Your task to perform on an android device: Open calendar and show me the second week of next month Image 0: 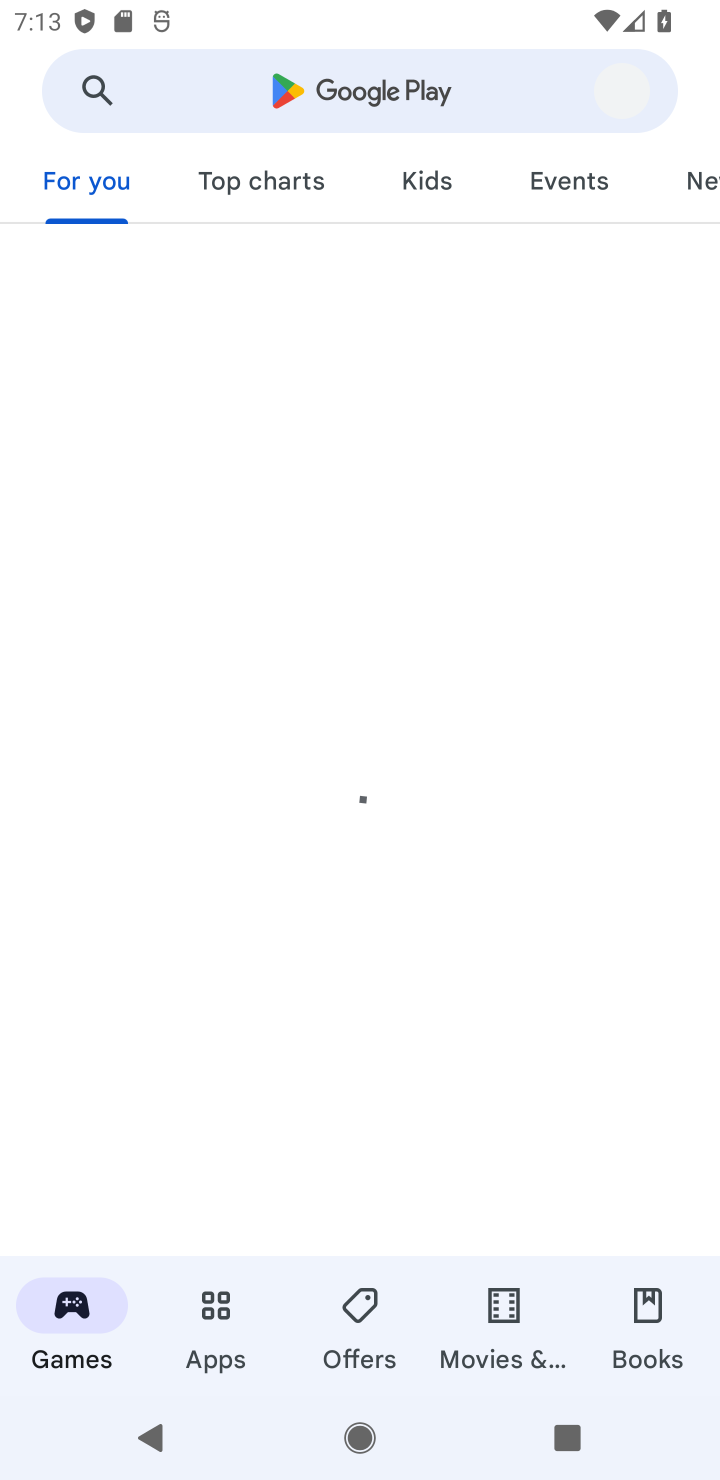
Step 0: press back button
Your task to perform on an android device: Open calendar and show me the second week of next month Image 1: 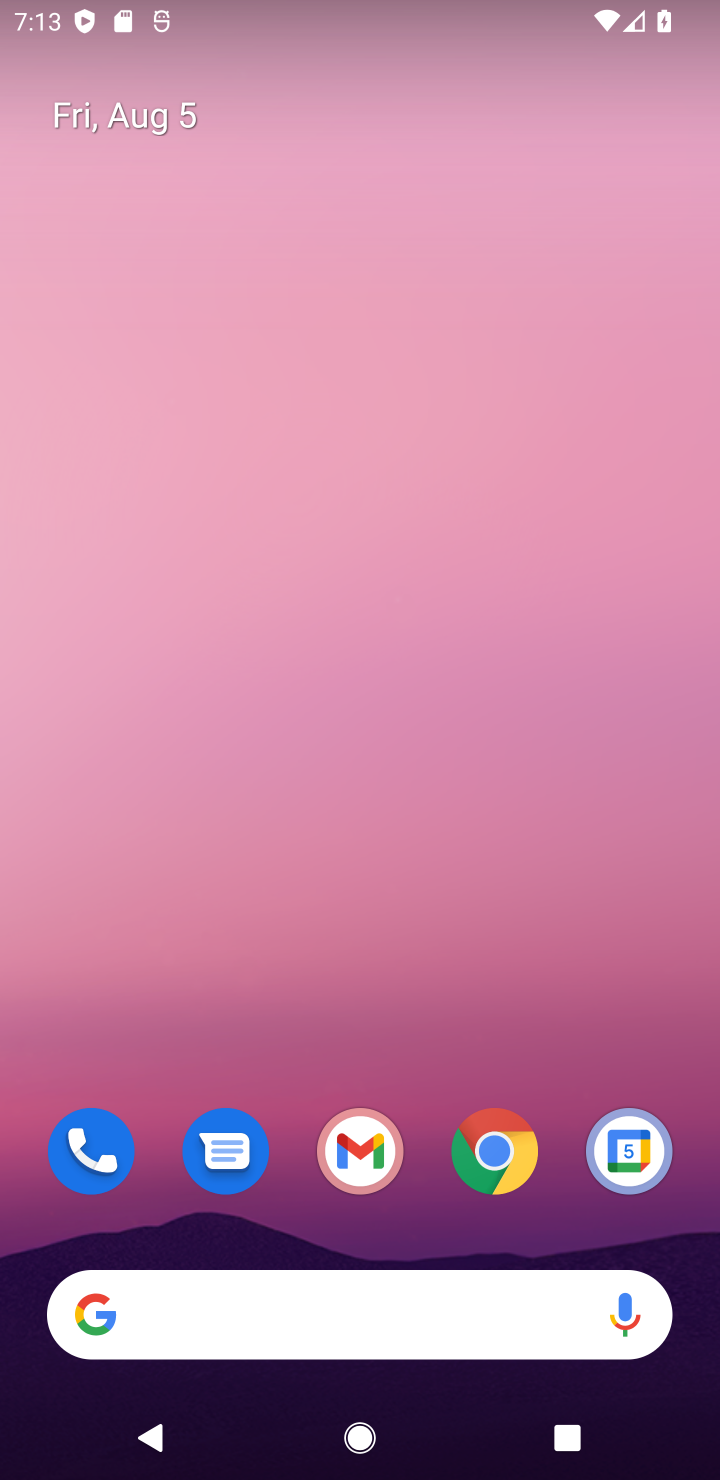
Step 1: drag from (460, 1249) to (396, 27)
Your task to perform on an android device: Open calendar and show me the second week of next month Image 2: 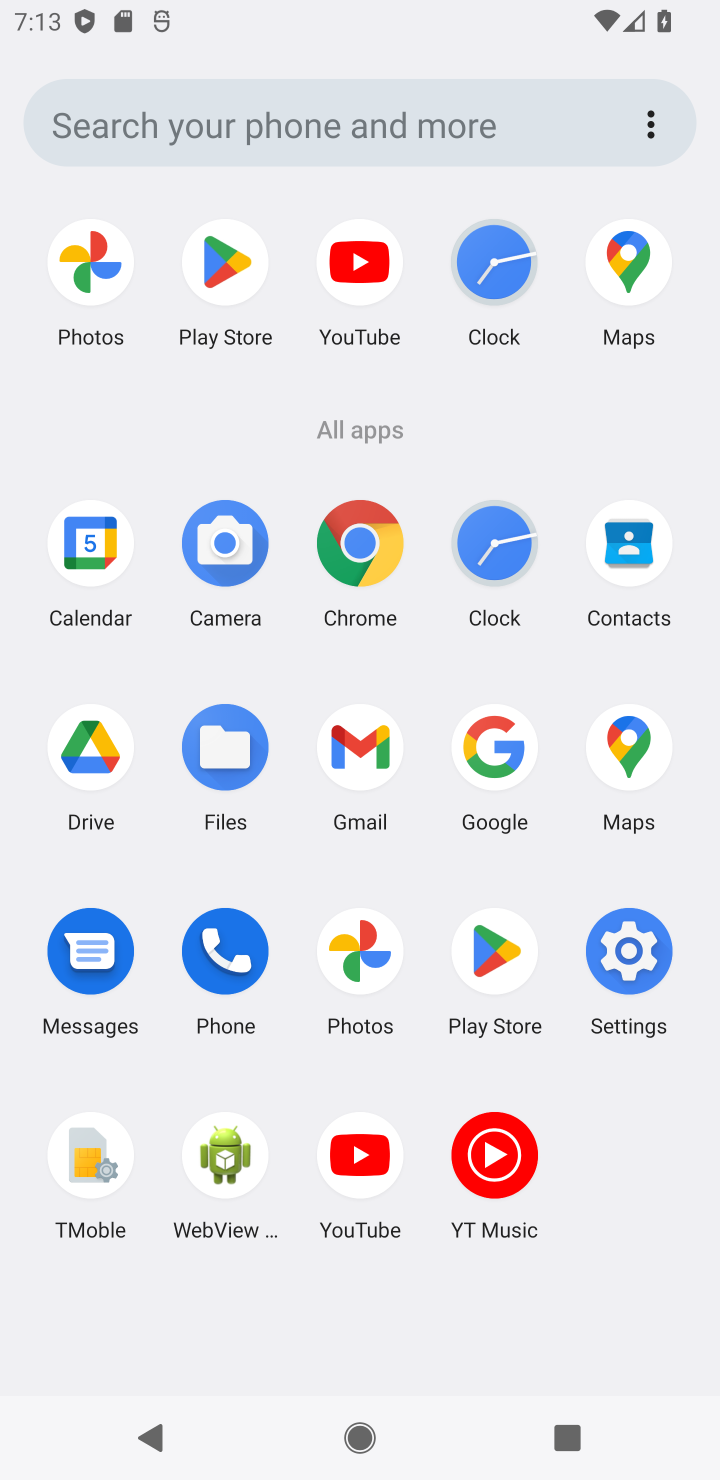
Step 2: click (35, 562)
Your task to perform on an android device: Open calendar and show me the second week of next month Image 3: 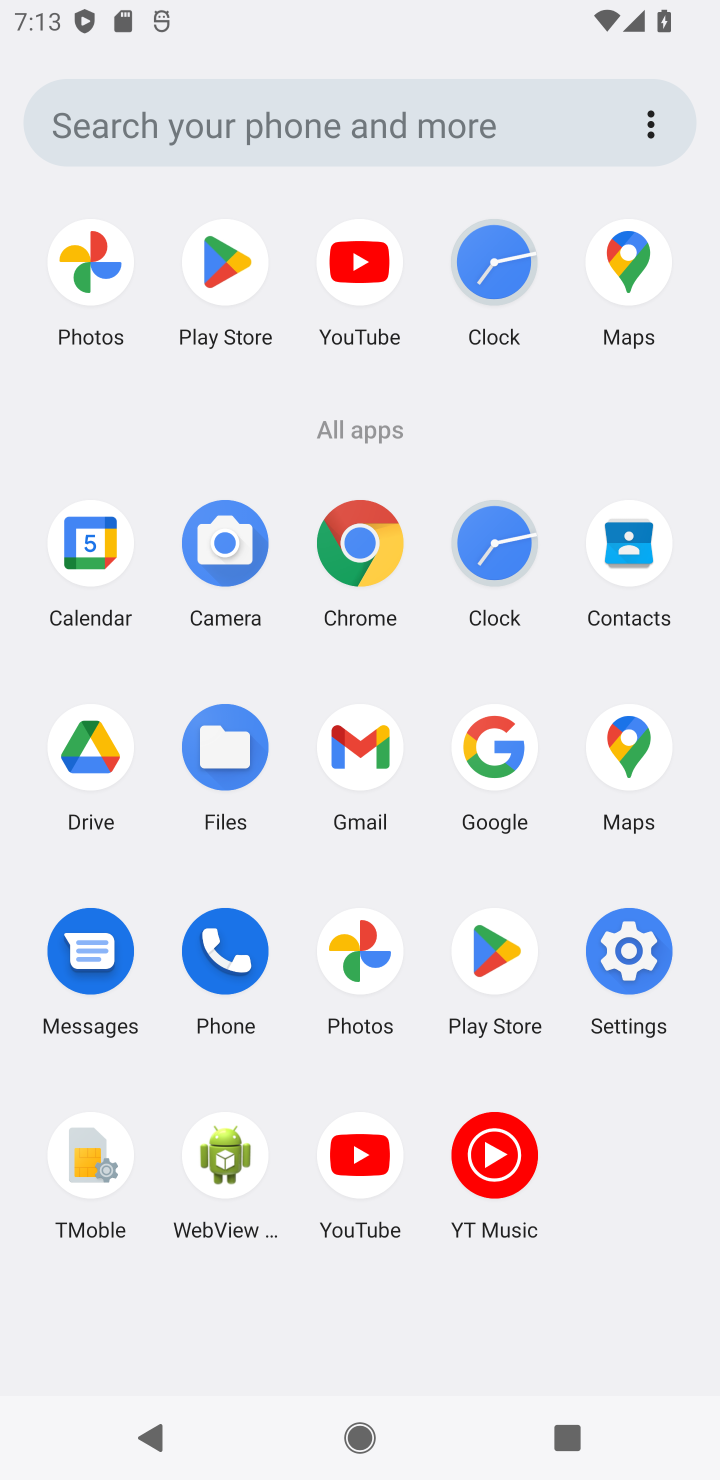
Step 3: click (75, 548)
Your task to perform on an android device: Open calendar and show me the second week of next month Image 4: 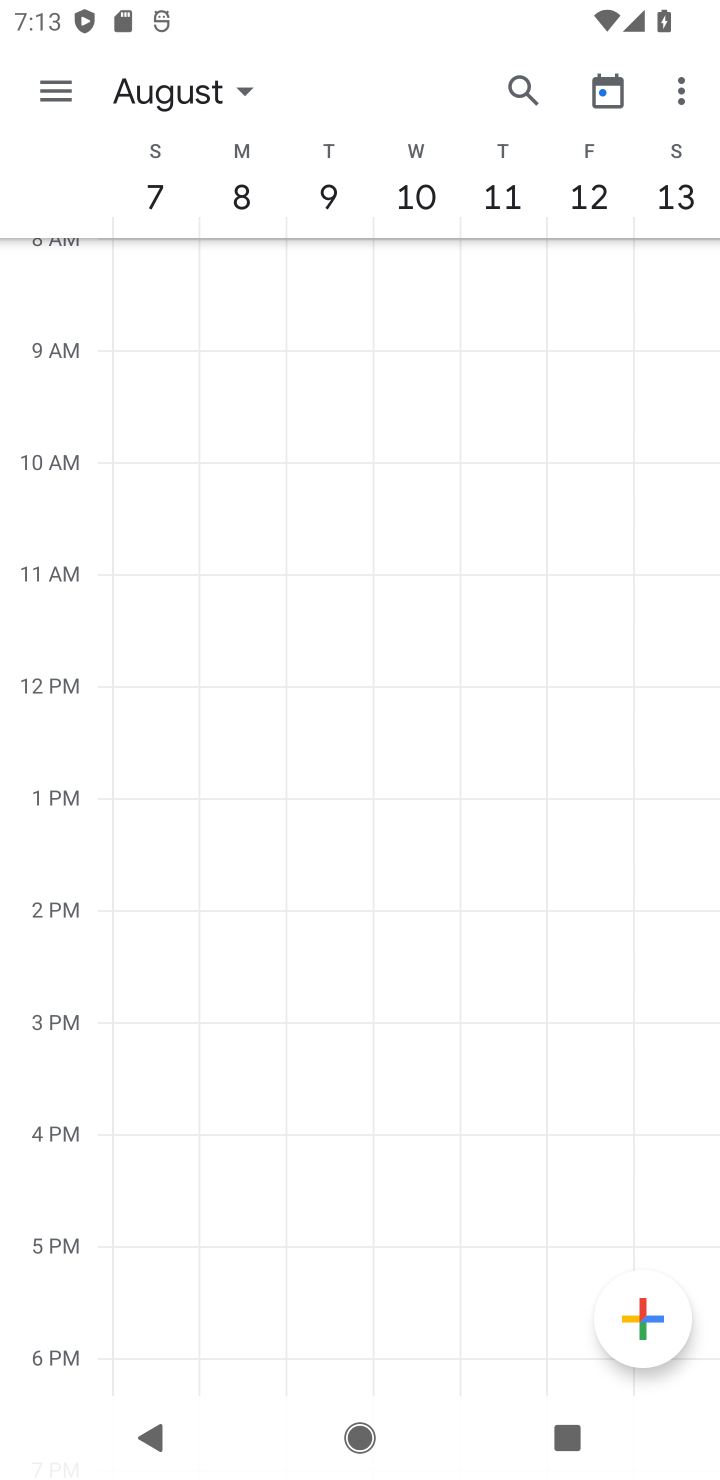
Step 4: task complete